Your task to perform on an android device: open app "Walmart Shopping & Grocery" (install if not already installed) Image 0: 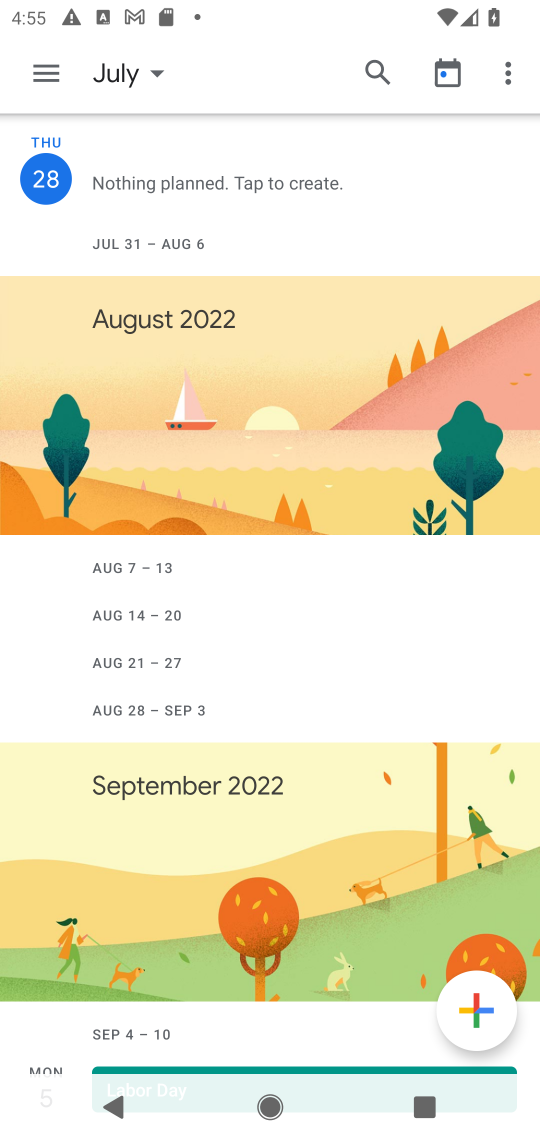
Step 0: press home button
Your task to perform on an android device: open app "Walmart Shopping & Grocery" (install if not already installed) Image 1: 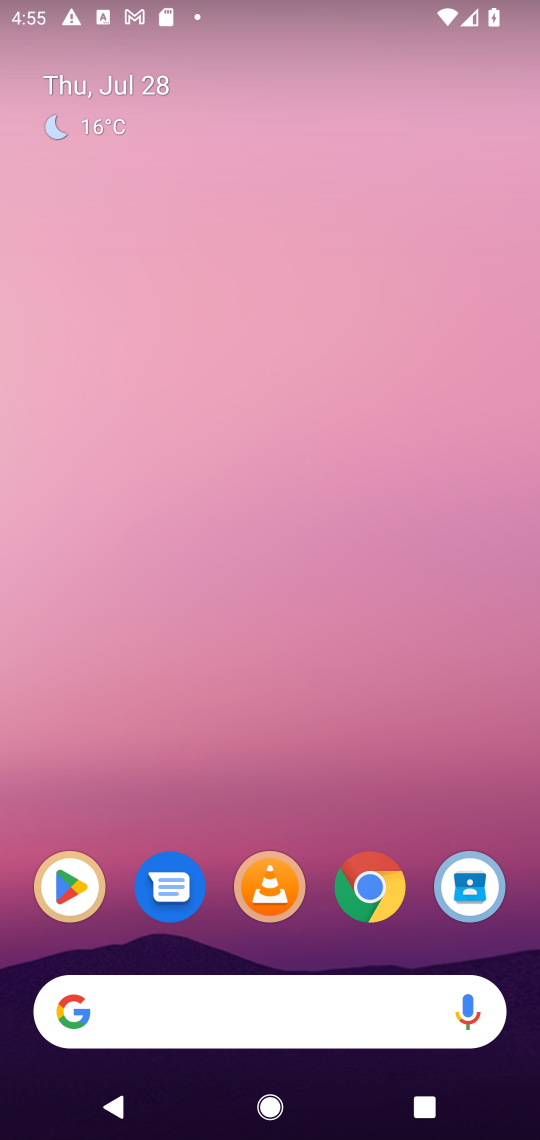
Step 1: click (71, 866)
Your task to perform on an android device: open app "Walmart Shopping & Grocery" (install if not already installed) Image 2: 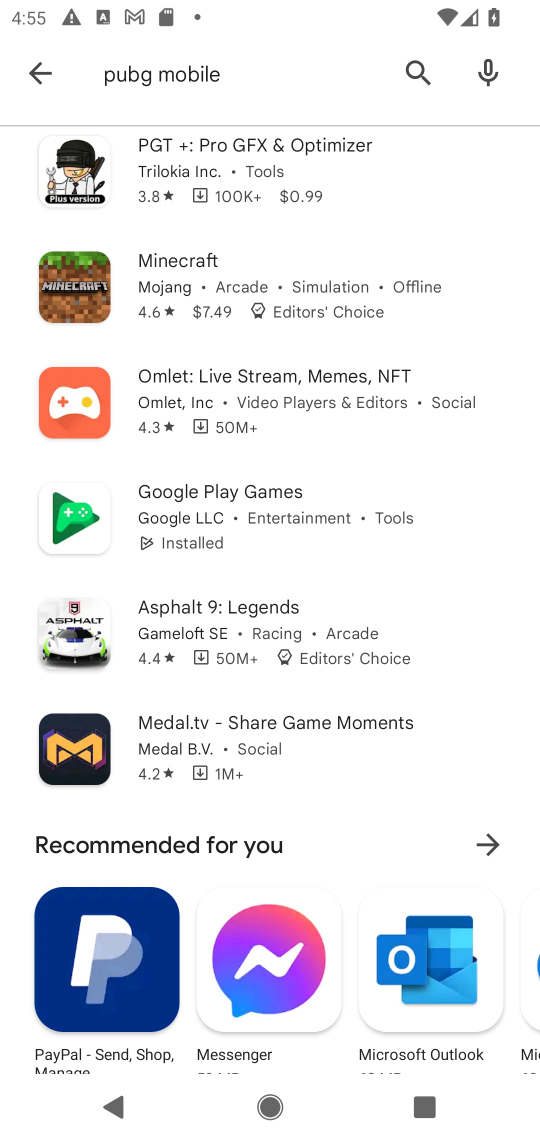
Step 2: click (233, 77)
Your task to perform on an android device: open app "Walmart Shopping & Grocery" (install if not already installed) Image 3: 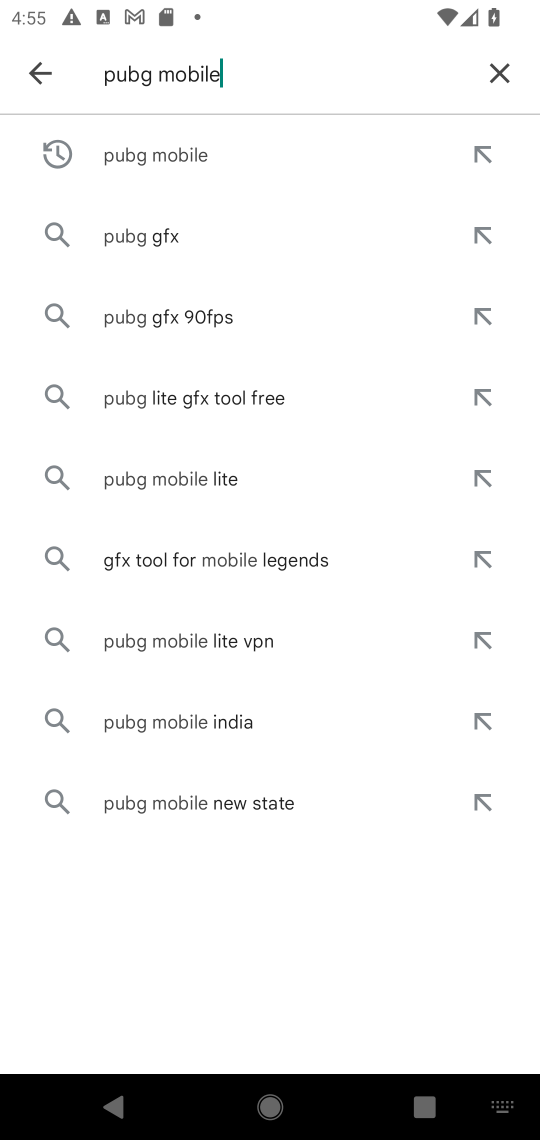
Step 3: click (497, 61)
Your task to perform on an android device: open app "Walmart Shopping & Grocery" (install if not already installed) Image 4: 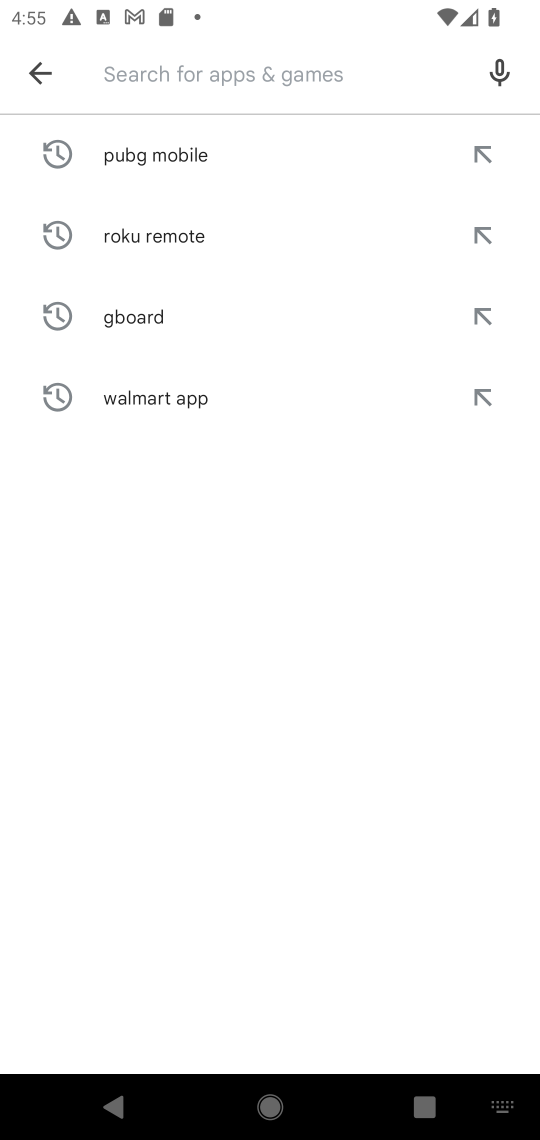
Step 4: type "Walmart Shopping "
Your task to perform on an android device: open app "Walmart Shopping & Grocery" (install if not already installed) Image 5: 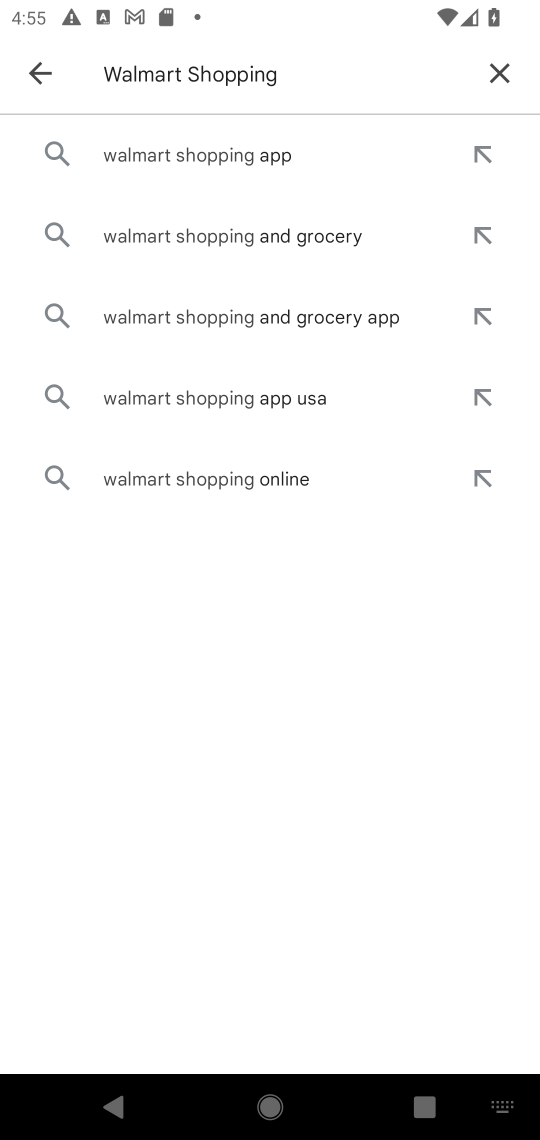
Step 5: click (184, 253)
Your task to perform on an android device: open app "Walmart Shopping & Grocery" (install if not already installed) Image 6: 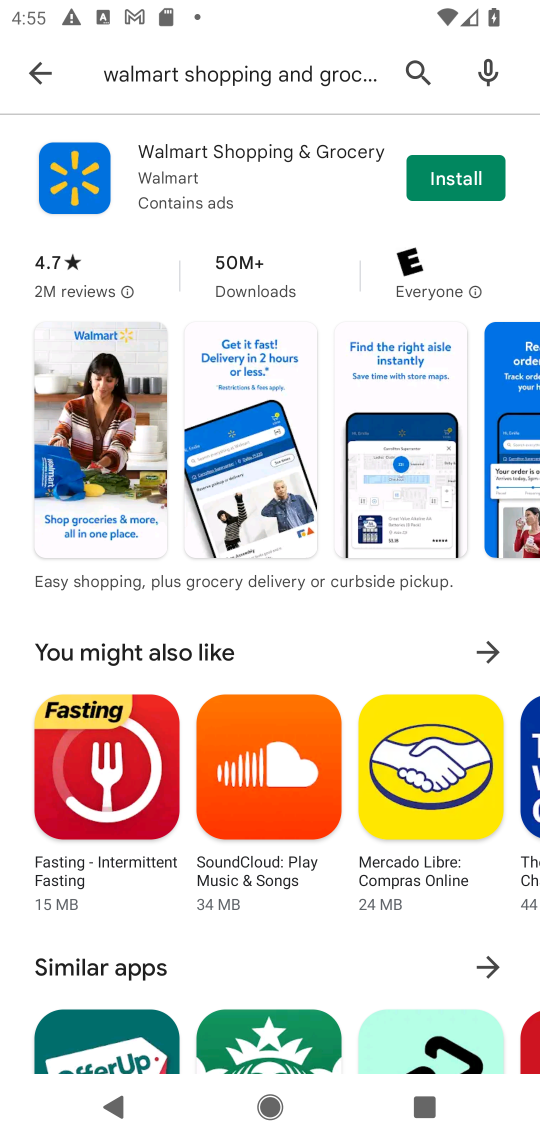
Step 6: click (457, 172)
Your task to perform on an android device: open app "Walmart Shopping & Grocery" (install if not already installed) Image 7: 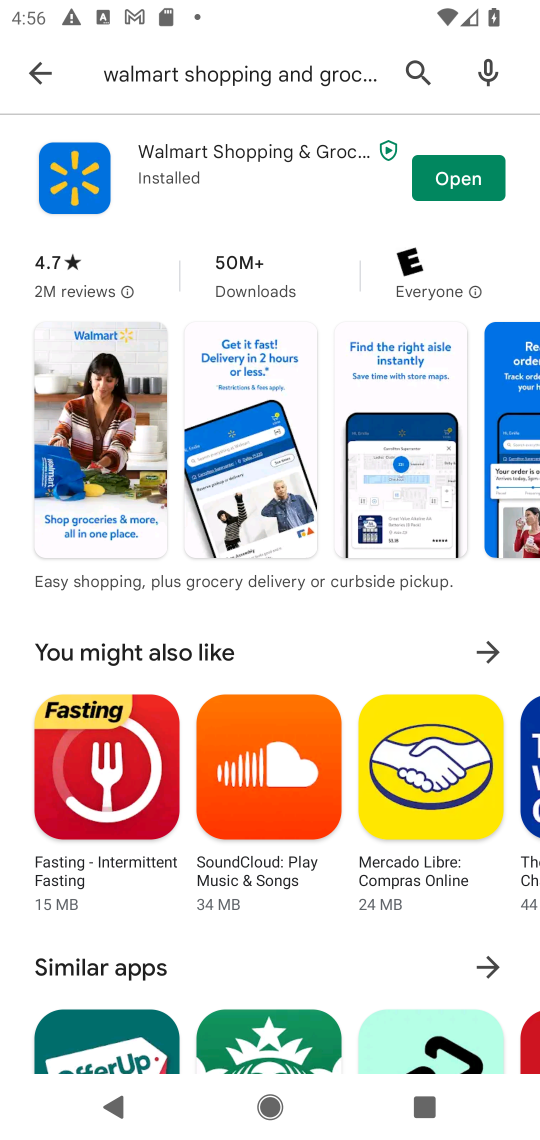
Step 7: click (468, 175)
Your task to perform on an android device: open app "Walmart Shopping & Grocery" (install if not already installed) Image 8: 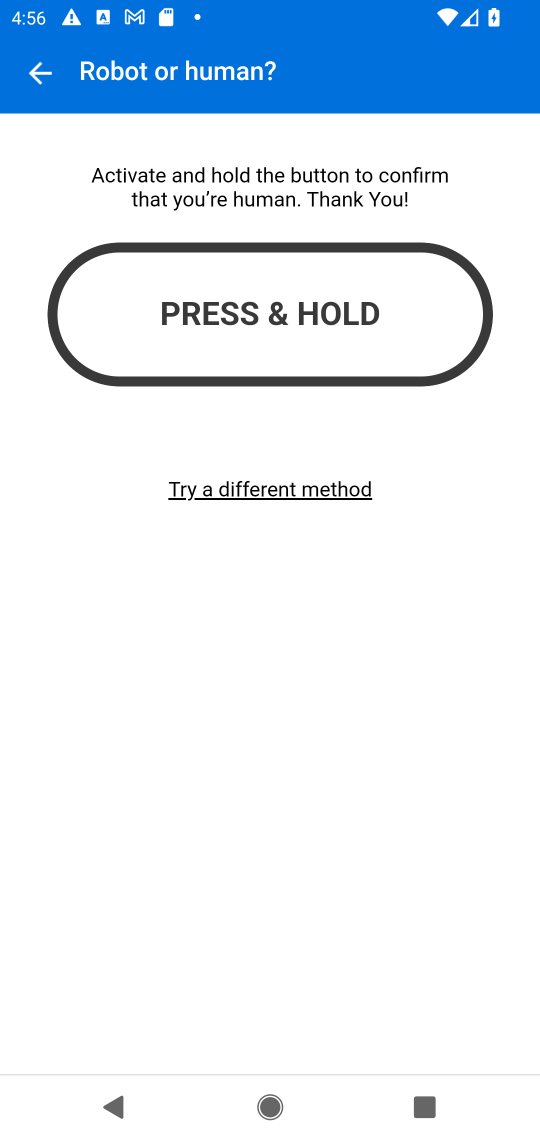
Step 8: task complete